Your task to perform on an android device: Open Google Chrome and click the shortcut for Amazon.com Image 0: 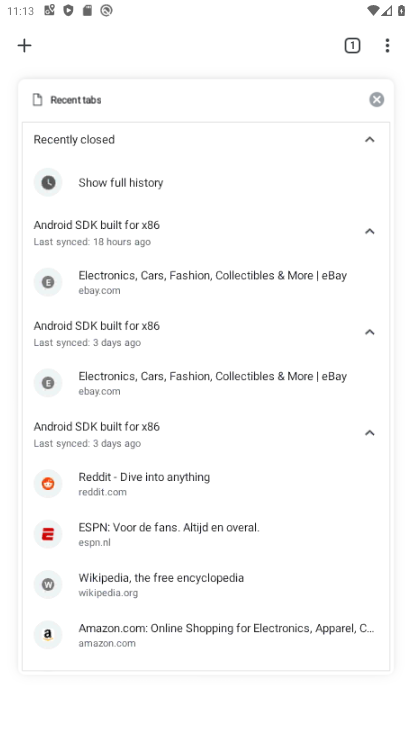
Step 0: press home button
Your task to perform on an android device: Open Google Chrome and click the shortcut for Amazon.com Image 1: 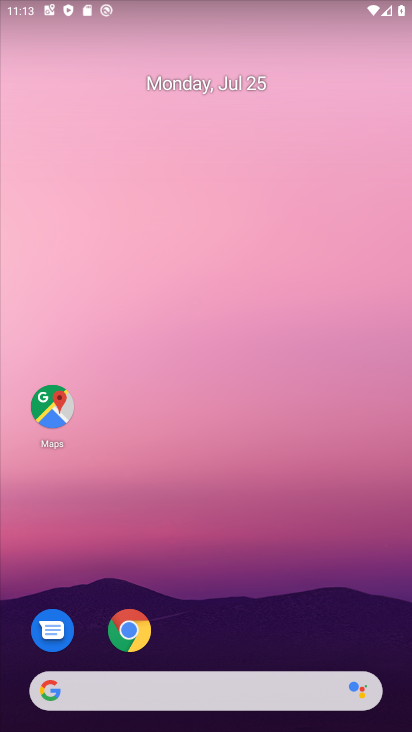
Step 1: drag from (346, 593) to (356, 108)
Your task to perform on an android device: Open Google Chrome and click the shortcut for Amazon.com Image 2: 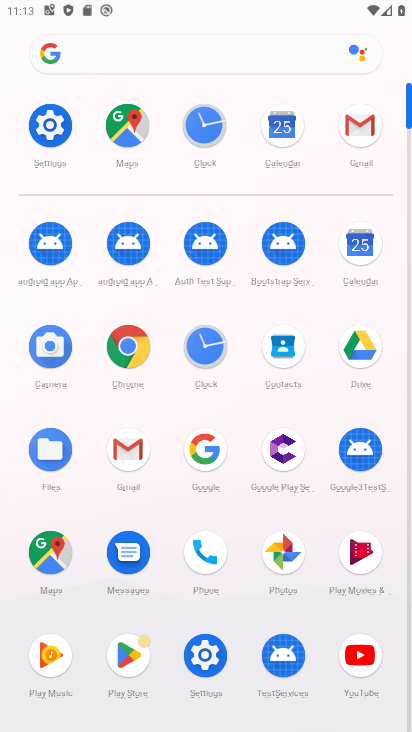
Step 2: click (133, 357)
Your task to perform on an android device: Open Google Chrome and click the shortcut for Amazon.com Image 3: 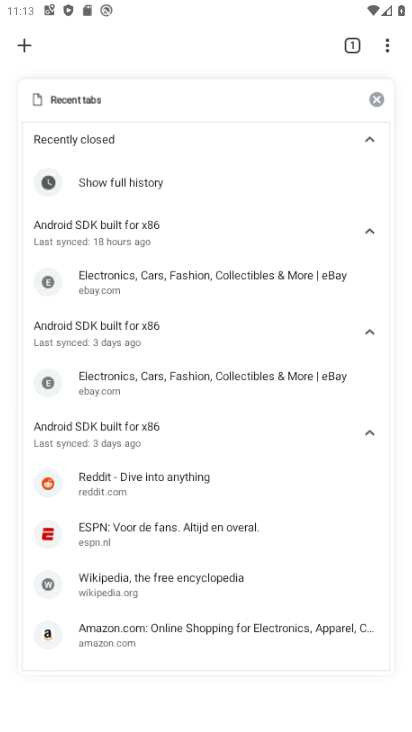
Step 3: task complete